Your task to perform on an android device: search for starred emails in the gmail app Image 0: 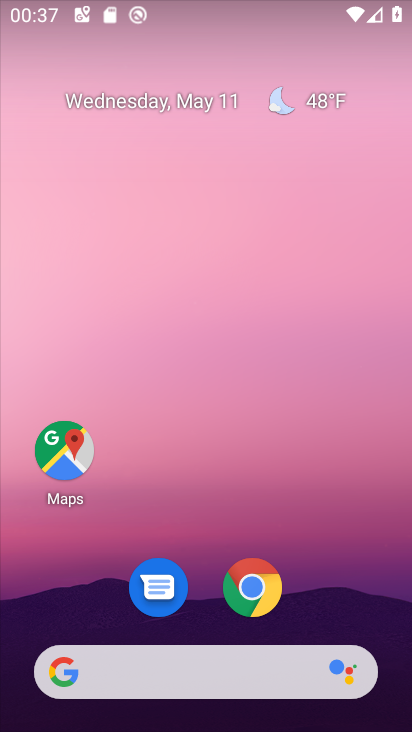
Step 0: drag from (340, 598) to (241, 238)
Your task to perform on an android device: search for starred emails in the gmail app Image 1: 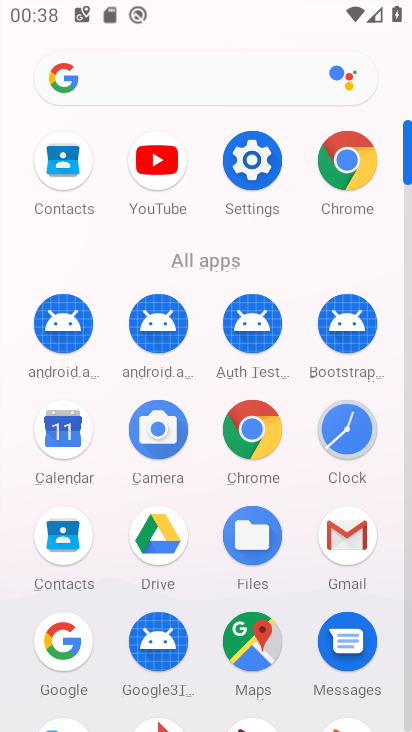
Step 1: click (338, 539)
Your task to perform on an android device: search for starred emails in the gmail app Image 2: 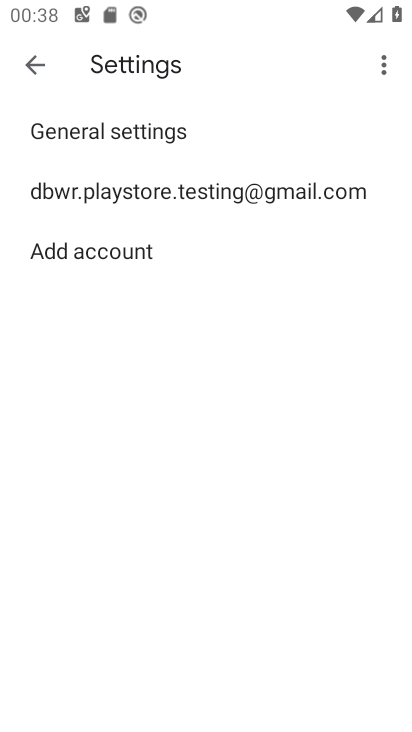
Step 2: click (38, 80)
Your task to perform on an android device: search for starred emails in the gmail app Image 3: 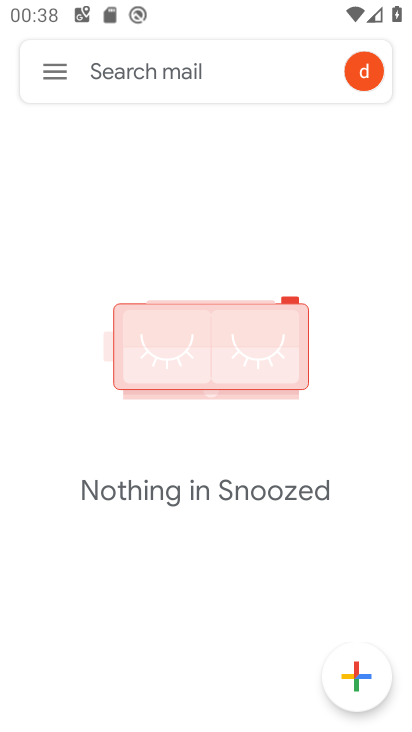
Step 3: click (38, 80)
Your task to perform on an android device: search for starred emails in the gmail app Image 4: 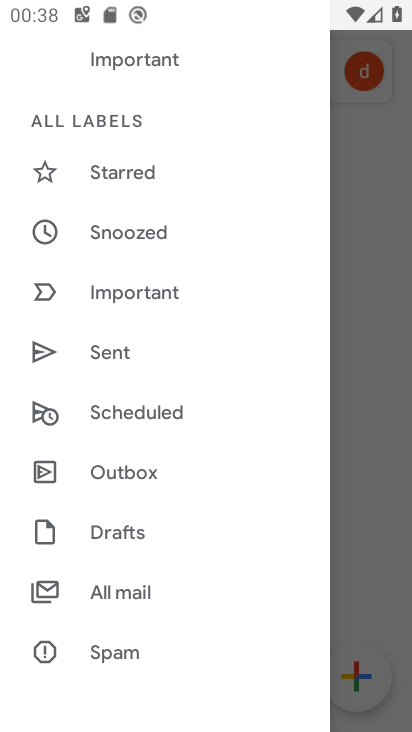
Step 4: click (134, 172)
Your task to perform on an android device: search for starred emails in the gmail app Image 5: 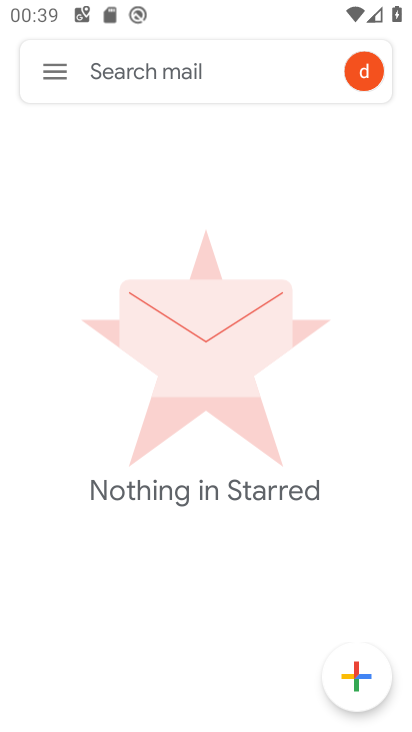
Step 5: task complete